Your task to perform on an android device: Go to wifi settings Image 0: 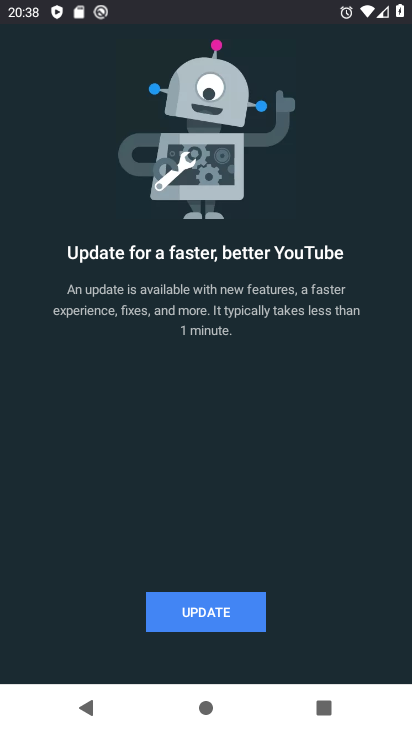
Step 0: press home button
Your task to perform on an android device: Go to wifi settings Image 1: 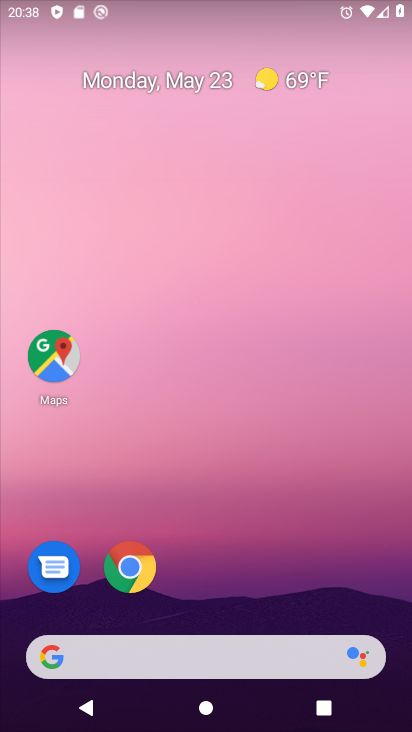
Step 1: drag from (217, 604) to (178, 14)
Your task to perform on an android device: Go to wifi settings Image 2: 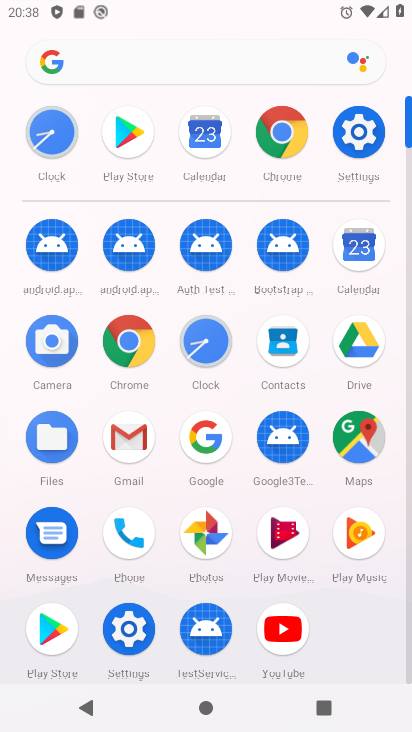
Step 2: click (370, 151)
Your task to perform on an android device: Go to wifi settings Image 3: 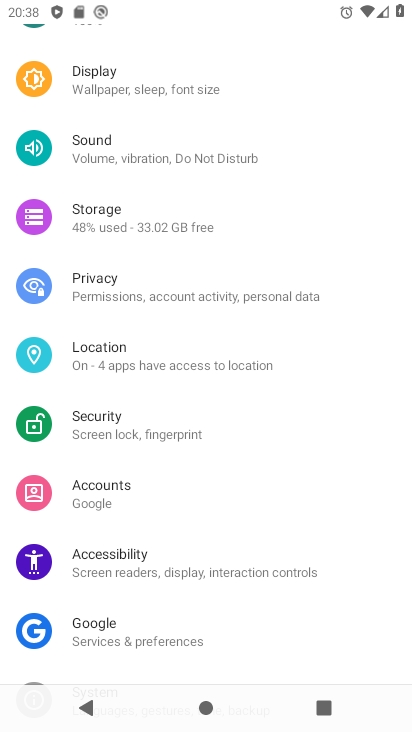
Step 3: drag from (208, 183) to (218, 656)
Your task to perform on an android device: Go to wifi settings Image 4: 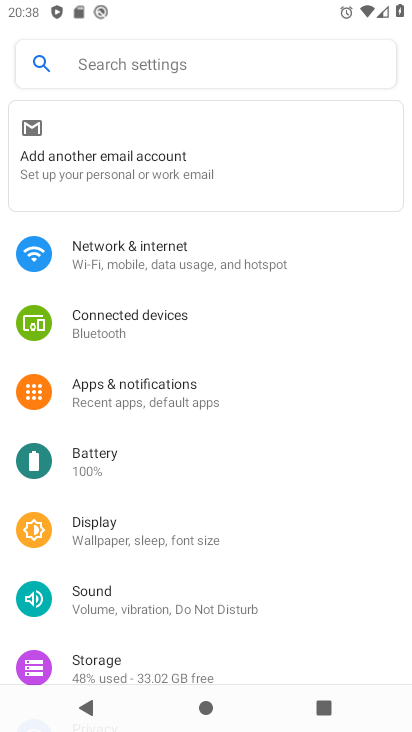
Step 4: click (178, 261)
Your task to perform on an android device: Go to wifi settings Image 5: 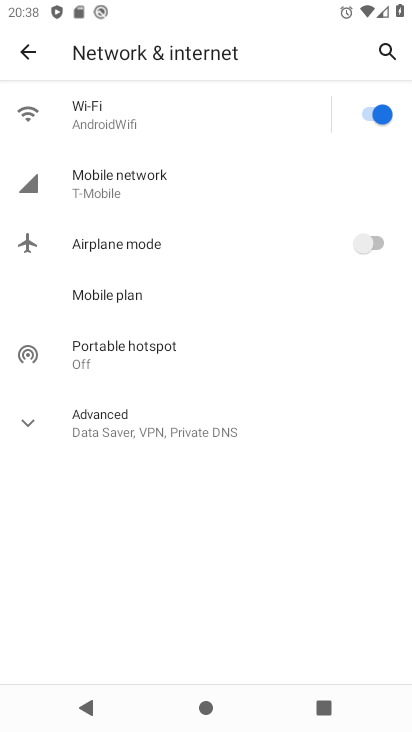
Step 5: click (153, 125)
Your task to perform on an android device: Go to wifi settings Image 6: 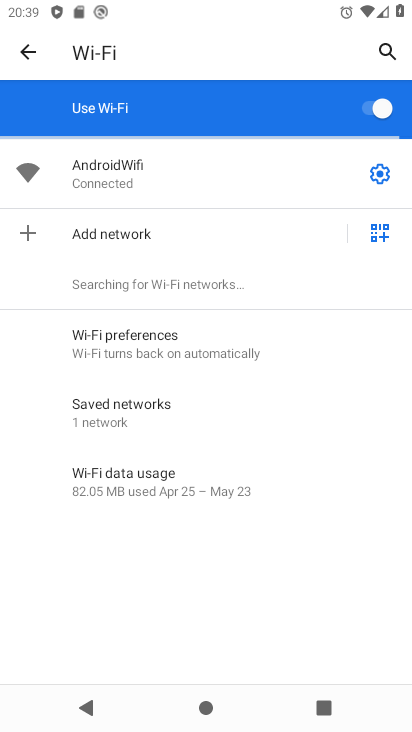
Step 6: task complete